Your task to perform on an android device: make emails show in primary in the gmail app Image 0: 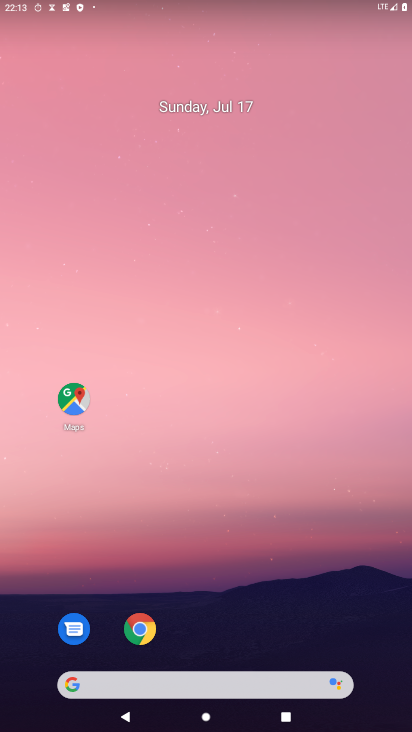
Step 0: drag from (235, 728) to (233, 60)
Your task to perform on an android device: make emails show in primary in the gmail app Image 1: 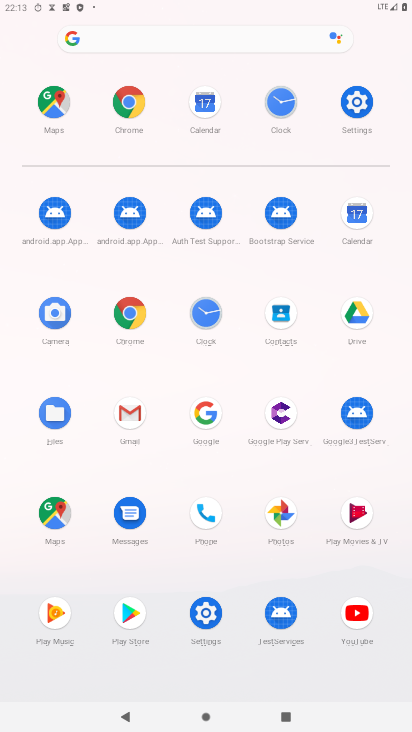
Step 1: click (134, 410)
Your task to perform on an android device: make emails show in primary in the gmail app Image 2: 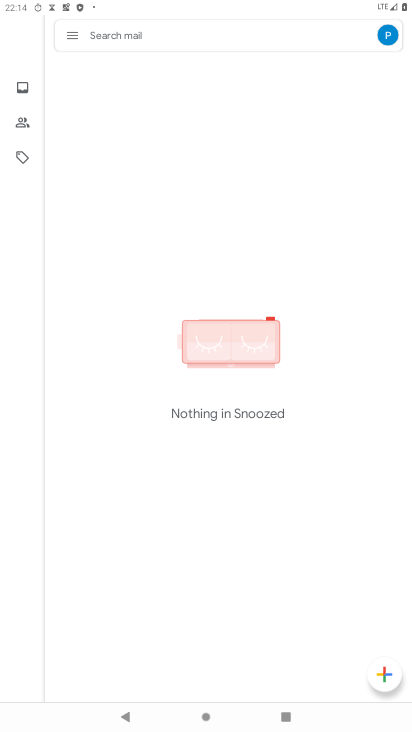
Step 2: click (70, 37)
Your task to perform on an android device: make emails show in primary in the gmail app Image 3: 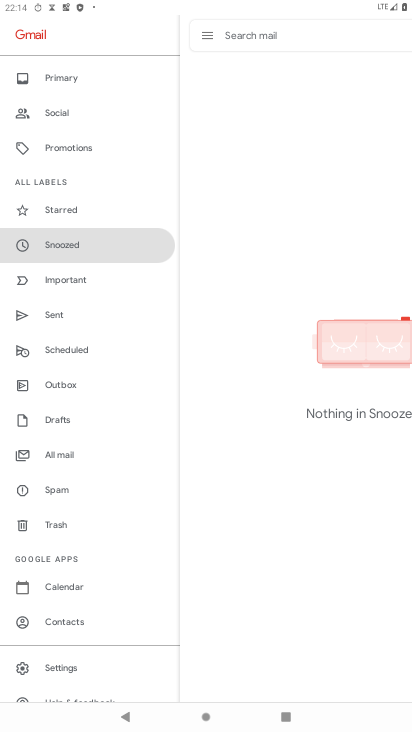
Step 3: click (61, 665)
Your task to perform on an android device: make emails show in primary in the gmail app Image 4: 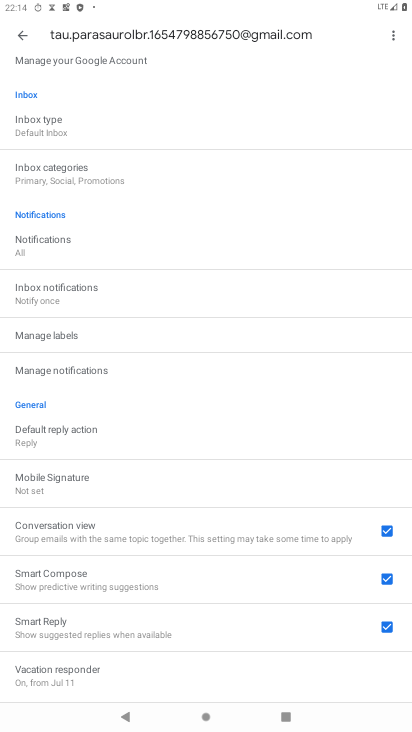
Step 4: click (62, 172)
Your task to perform on an android device: make emails show in primary in the gmail app Image 5: 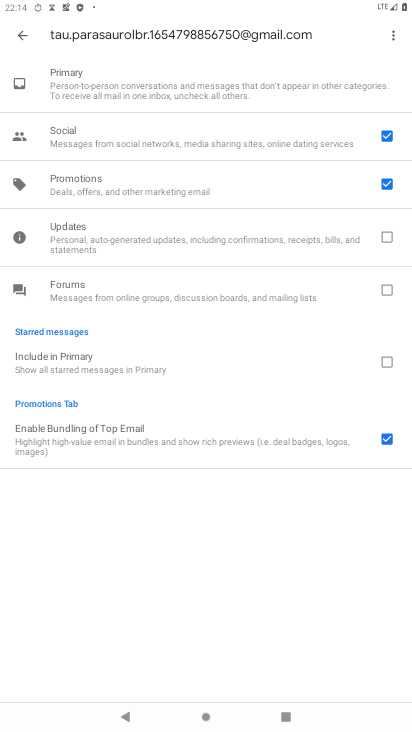
Step 5: click (387, 181)
Your task to perform on an android device: make emails show in primary in the gmail app Image 6: 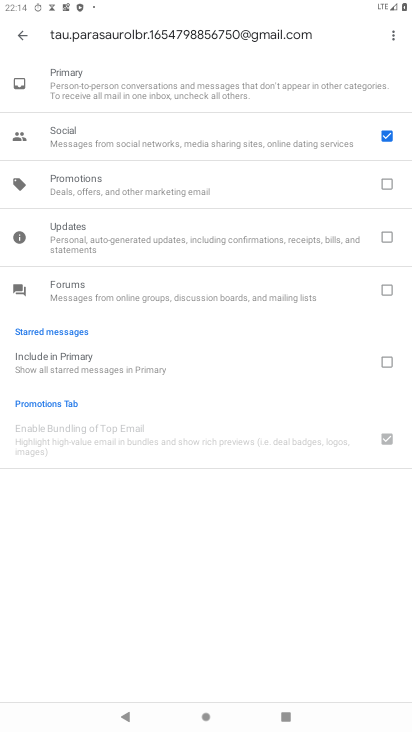
Step 6: click (389, 135)
Your task to perform on an android device: make emails show in primary in the gmail app Image 7: 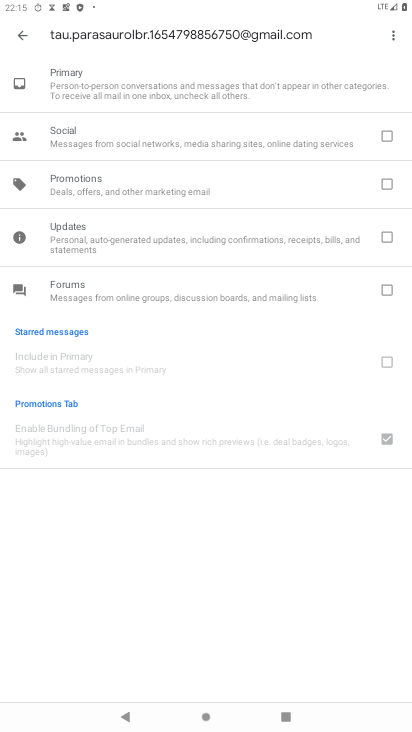
Step 7: click (25, 35)
Your task to perform on an android device: make emails show in primary in the gmail app Image 8: 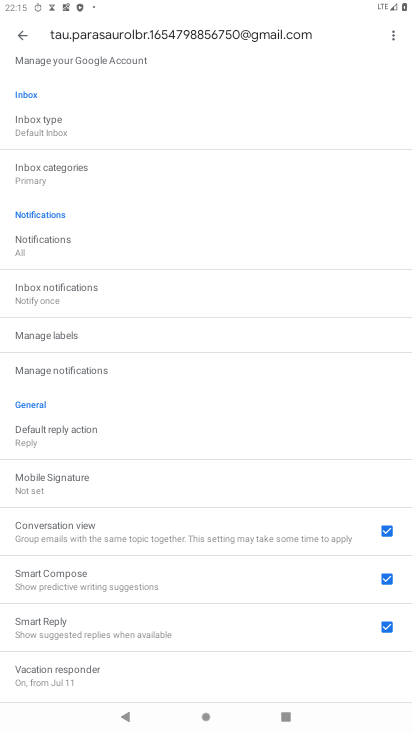
Step 8: task complete